Your task to perform on an android device: Open Chrome and go to settings Image 0: 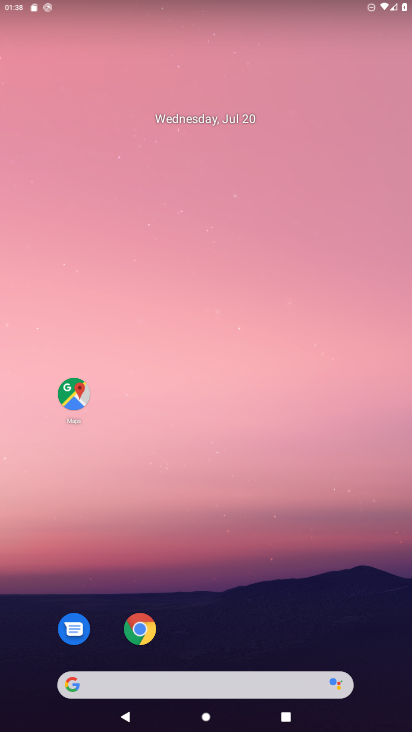
Step 0: click (130, 629)
Your task to perform on an android device: Open Chrome and go to settings Image 1: 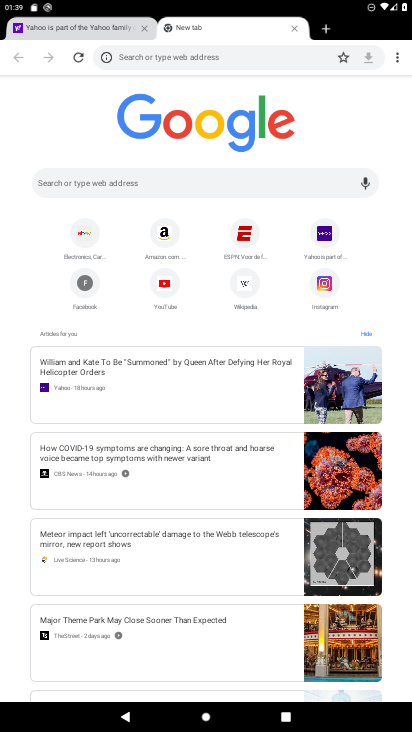
Step 1: click (396, 55)
Your task to perform on an android device: Open Chrome and go to settings Image 2: 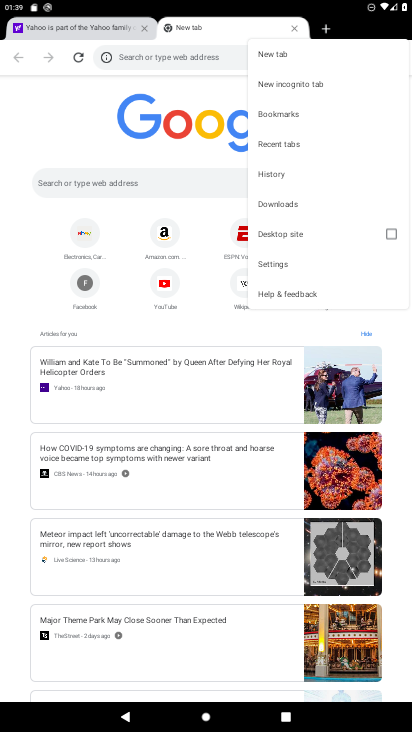
Step 2: click (275, 260)
Your task to perform on an android device: Open Chrome and go to settings Image 3: 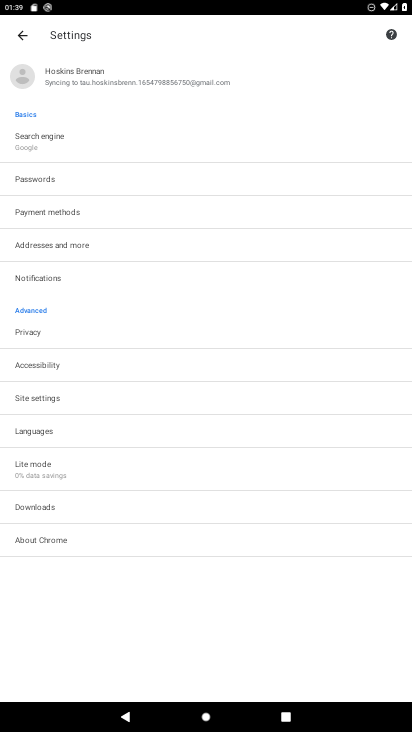
Step 3: task complete